Your task to perform on an android device: set default search engine in the chrome app Image 0: 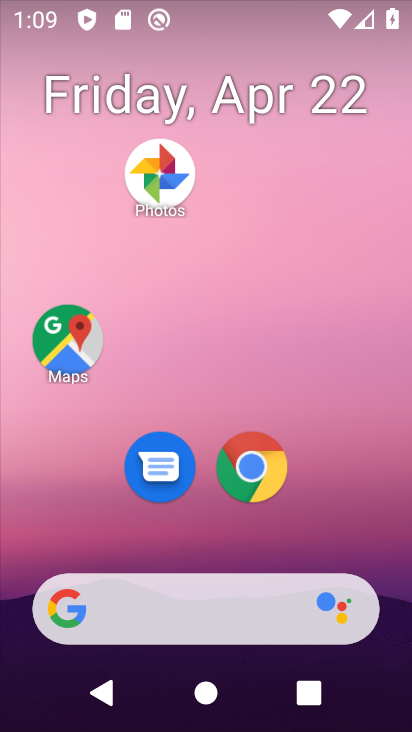
Step 0: click (262, 463)
Your task to perform on an android device: set default search engine in the chrome app Image 1: 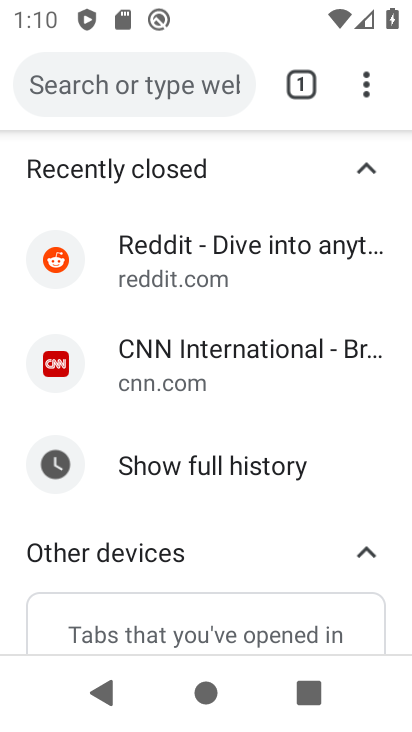
Step 1: click (366, 77)
Your task to perform on an android device: set default search engine in the chrome app Image 2: 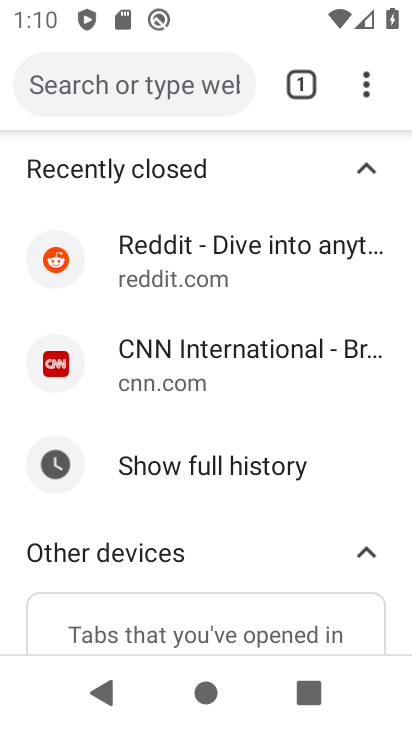
Step 2: click (373, 75)
Your task to perform on an android device: set default search engine in the chrome app Image 3: 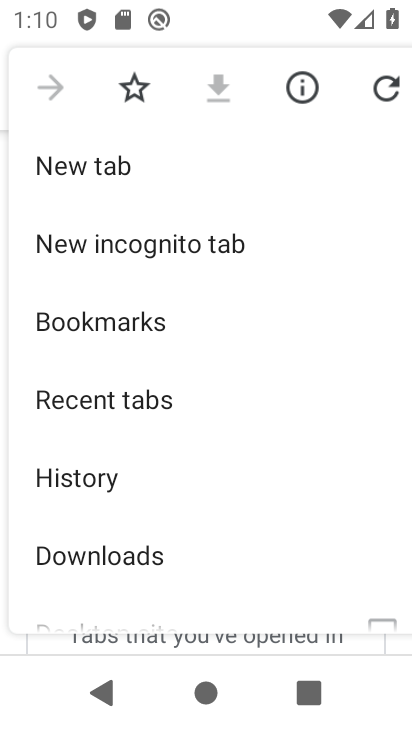
Step 3: drag from (186, 523) to (270, 43)
Your task to perform on an android device: set default search engine in the chrome app Image 4: 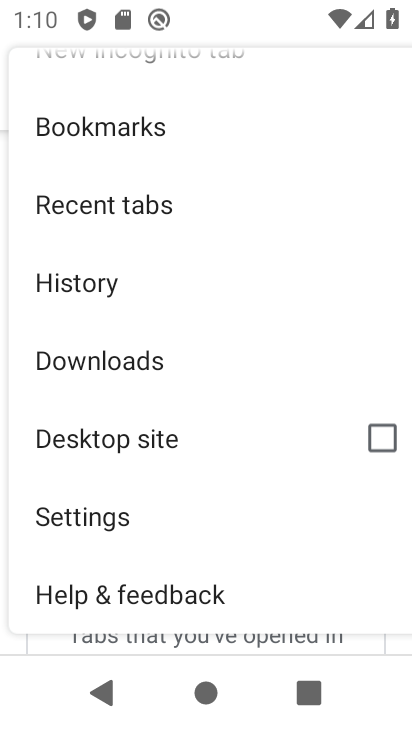
Step 4: click (152, 516)
Your task to perform on an android device: set default search engine in the chrome app Image 5: 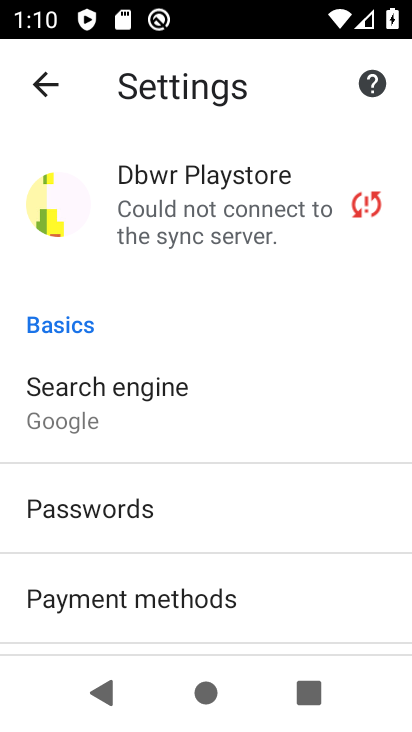
Step 5: click (124, 409)
Your task to perform on an android device: set default search engine in the chrome app Image 6: 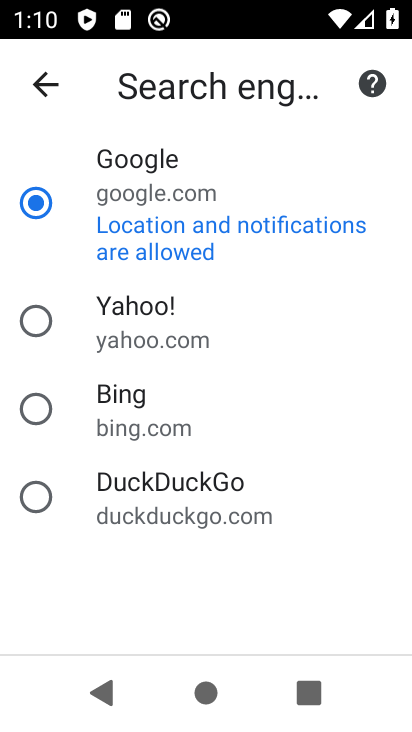
Step 6: click (39, 322)
Your task to perform on an android device: set default search engine in the chrome app Image 7: 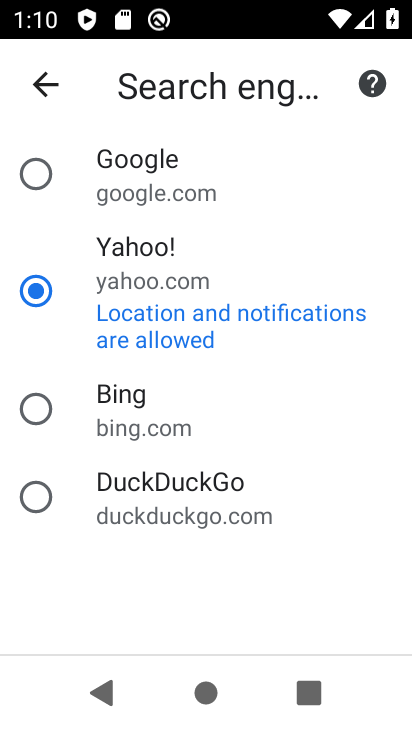
Step 7: task complete